Your task to perform on an android device: turn off improve location accuracy Image 0: 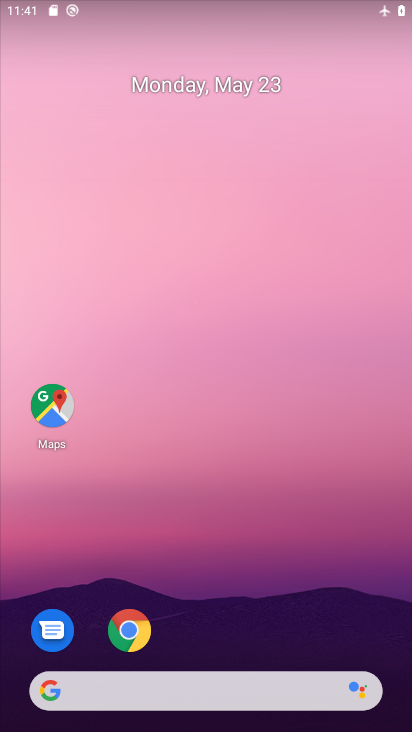
Step 0: drag from (201, 628) to (316, 0)
Your task to perform on an android device: turn off improve location accuracy Image 1: 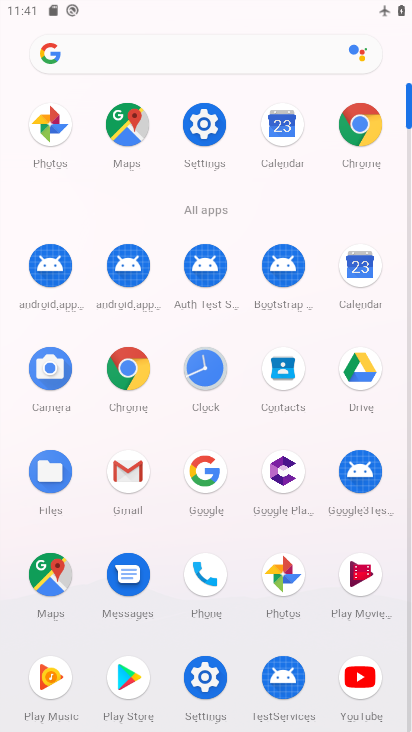
Step 1: click (212, 154)
Your task to perform on an android device: turn off improve location accuracy Image 2: 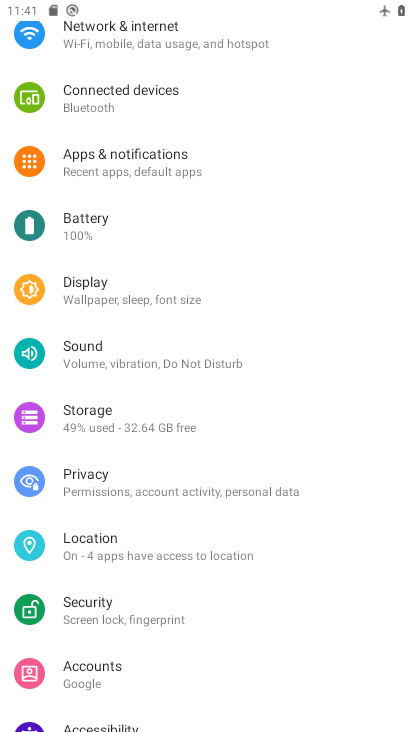
Step 2: click (131, 549)
Your task to perform on an android device: turn off improve location accuracy Image 3: 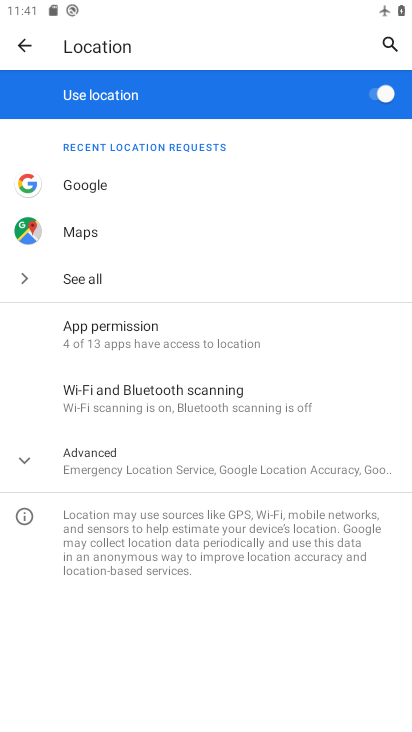
Step 3: click (143, 461)
Your task to perform on an android device: turn off improve location accuracy Image 4: 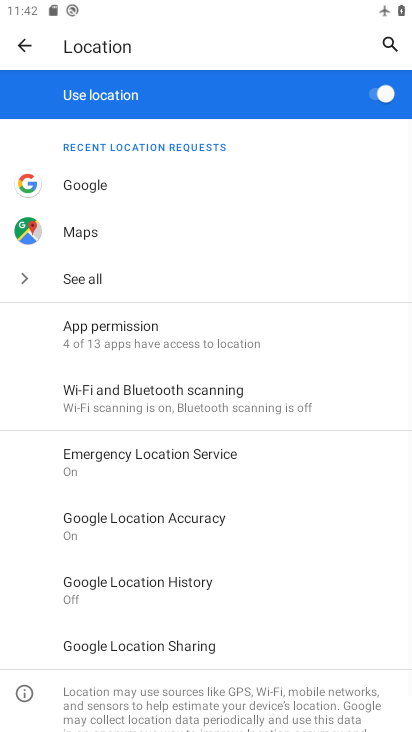
Step 4: click (183, 523)
Your task to perform on an android device: turn off improve location accuracy Image 5: 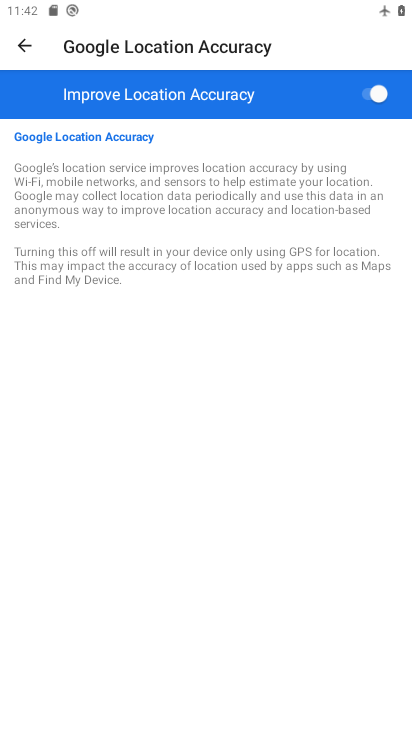
Step 5: click (355, 101)
Your task to perform on an android device: turn off improve location accuracy Image 6: 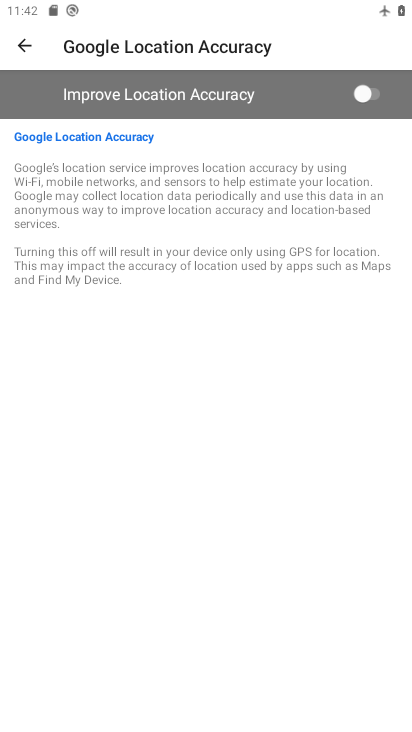
Step 6: task complete